Your task to perform on an android device: What's the latest news in cosmology? Image 0: 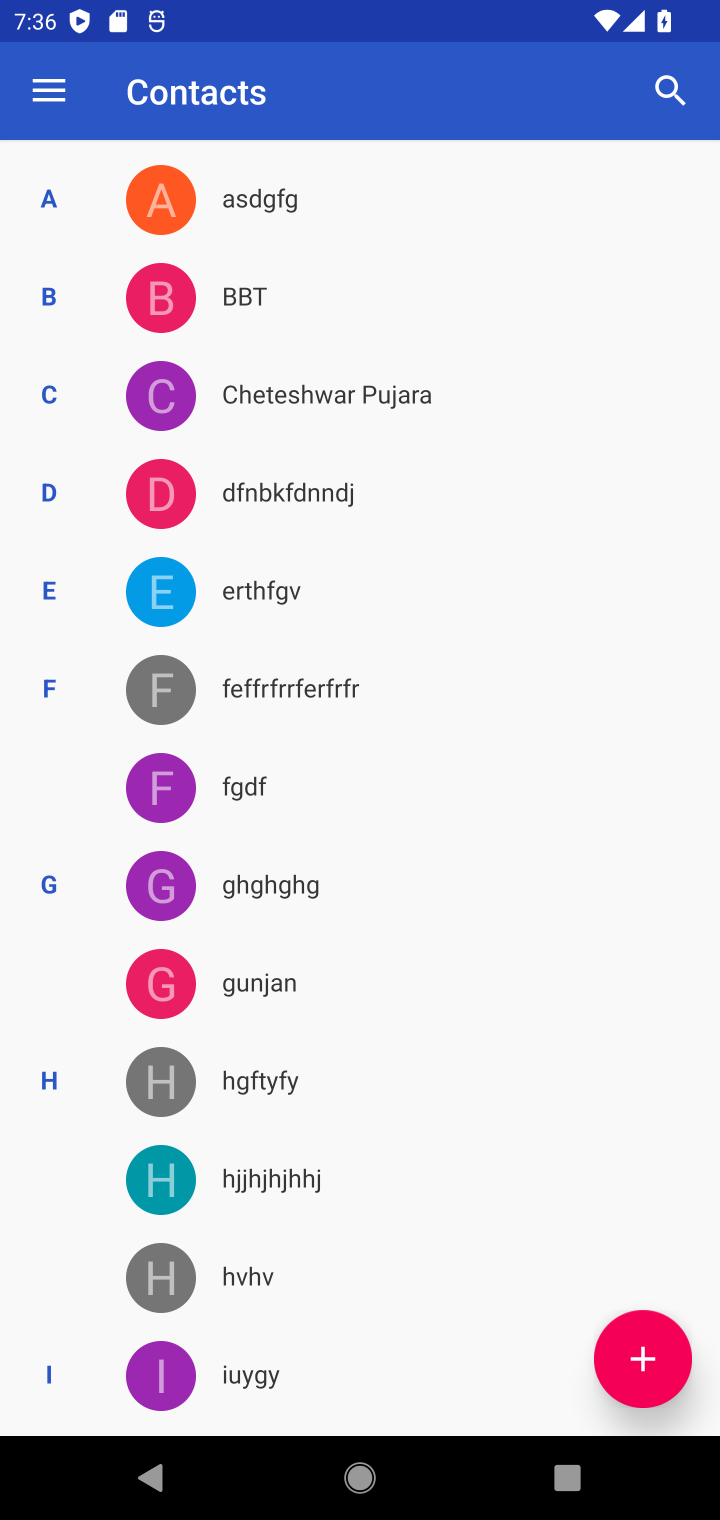
Step 0: press home button
Your task to perform on an android device: What's the latest news in cosmology? Image 1: 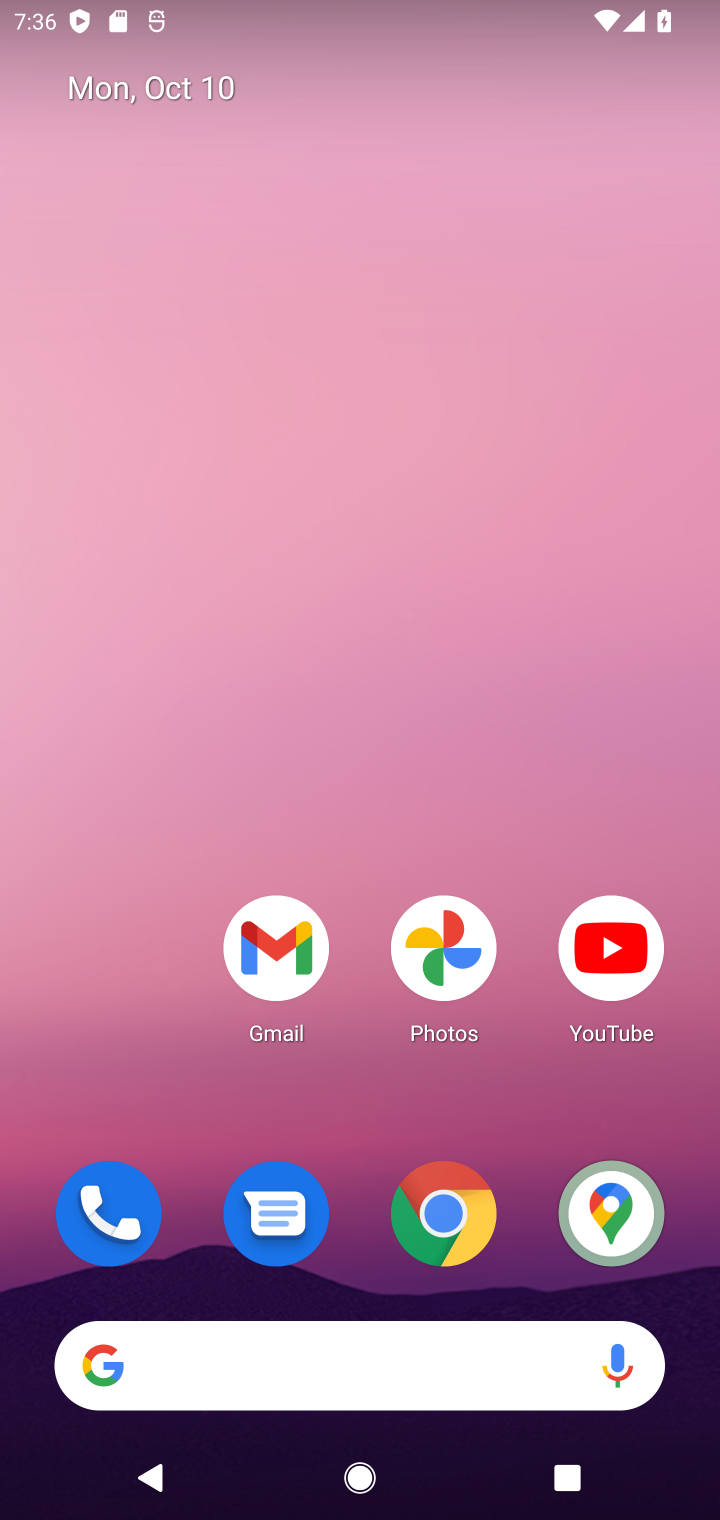
Step 1: click (351, 1344)
Your task to perform on an android device: What's the latest news in cosmology? Image 2: 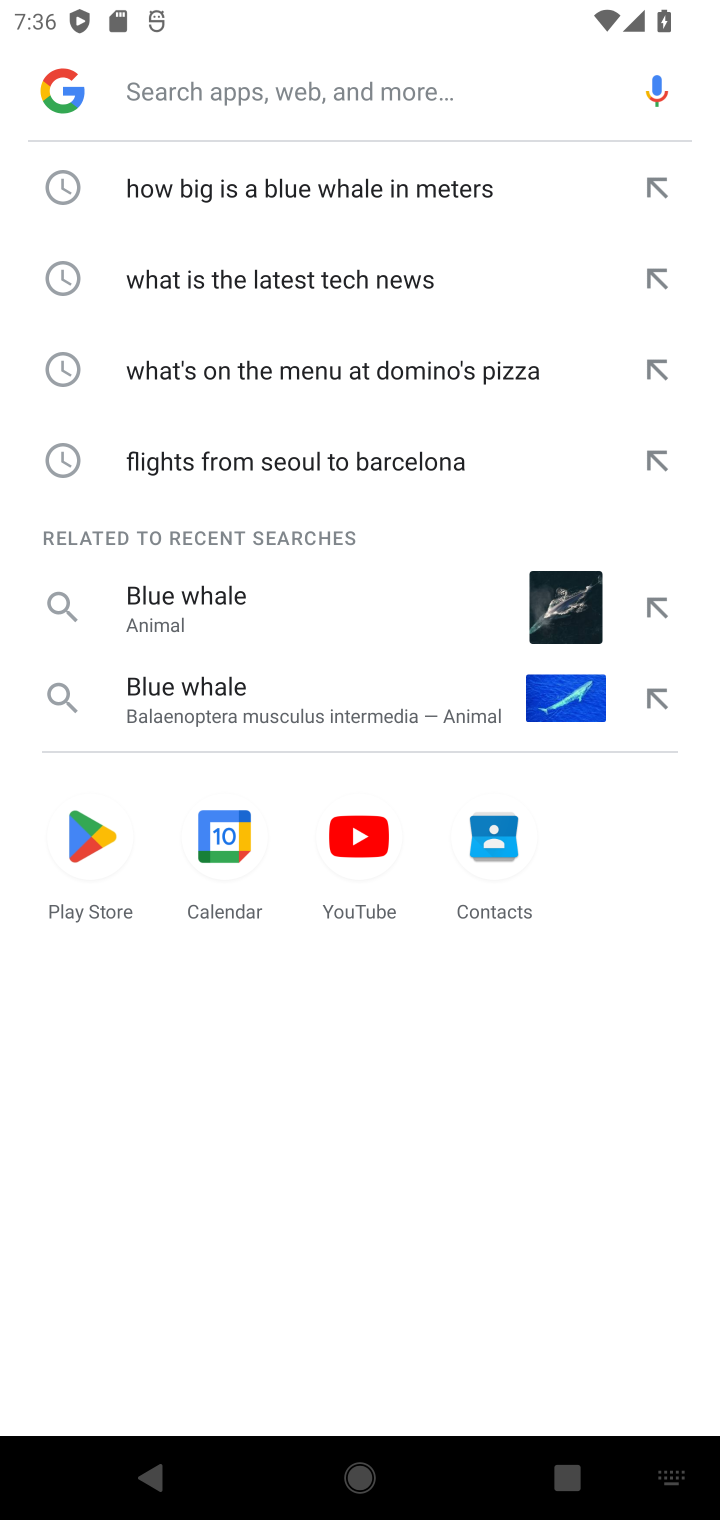
Step 2: click (159, 94)
Your task to perform on an android device: What's the latest news in cosmology? Image 3: 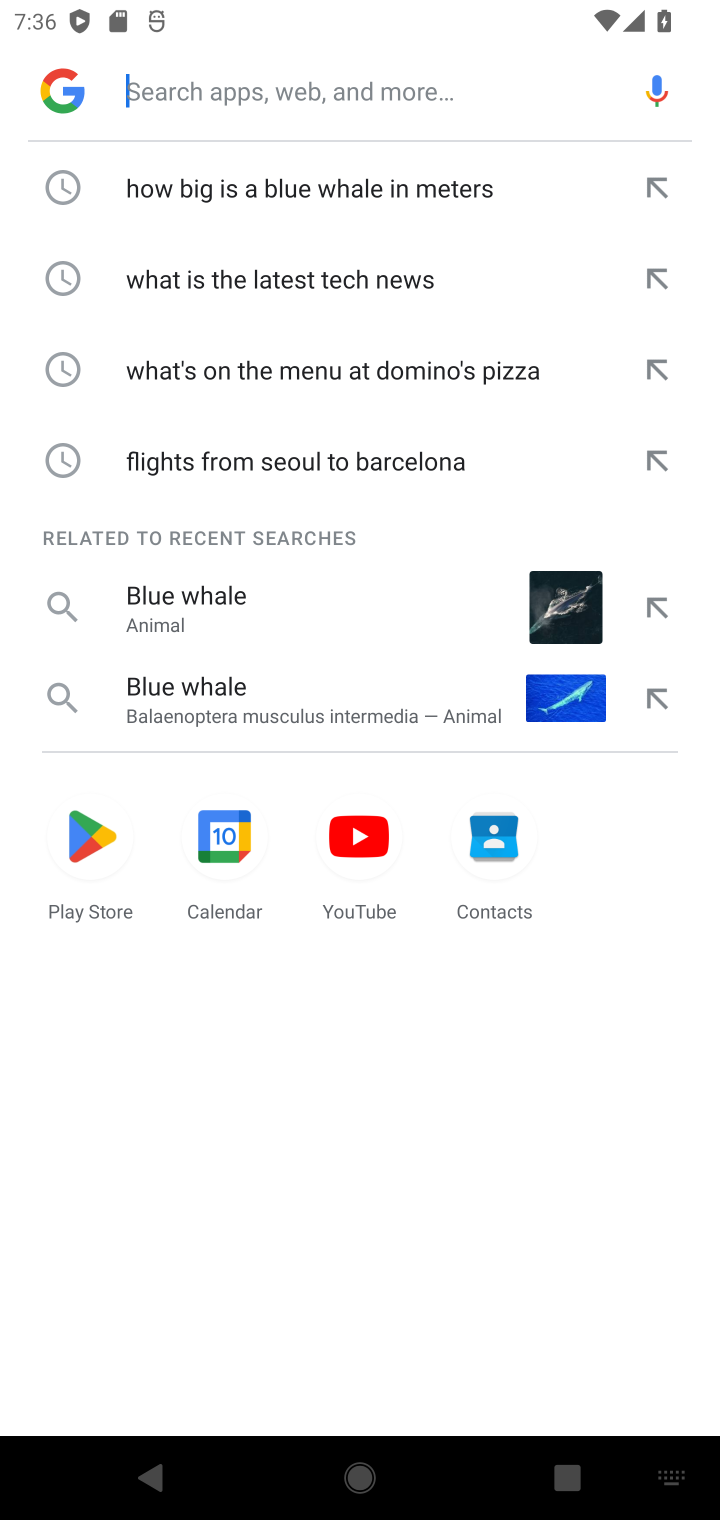
Step 3: type "What's the latest news in cosmology?"
Your task to perform on an android device: What's the latest news in cosmology? Image 4: 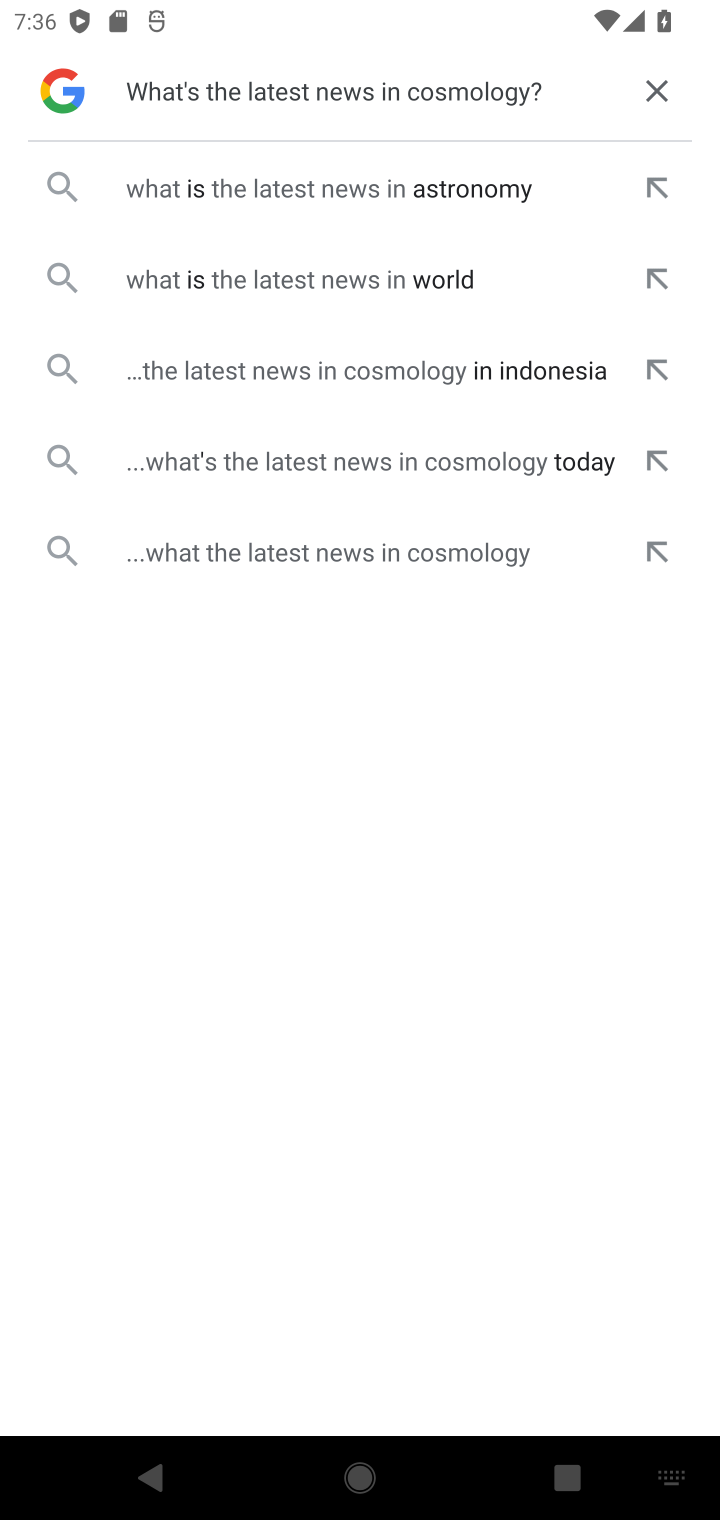
Step 4: click (343, 546)
Your task to perform on an android device: What's the latest news in cosmology? Image 5: 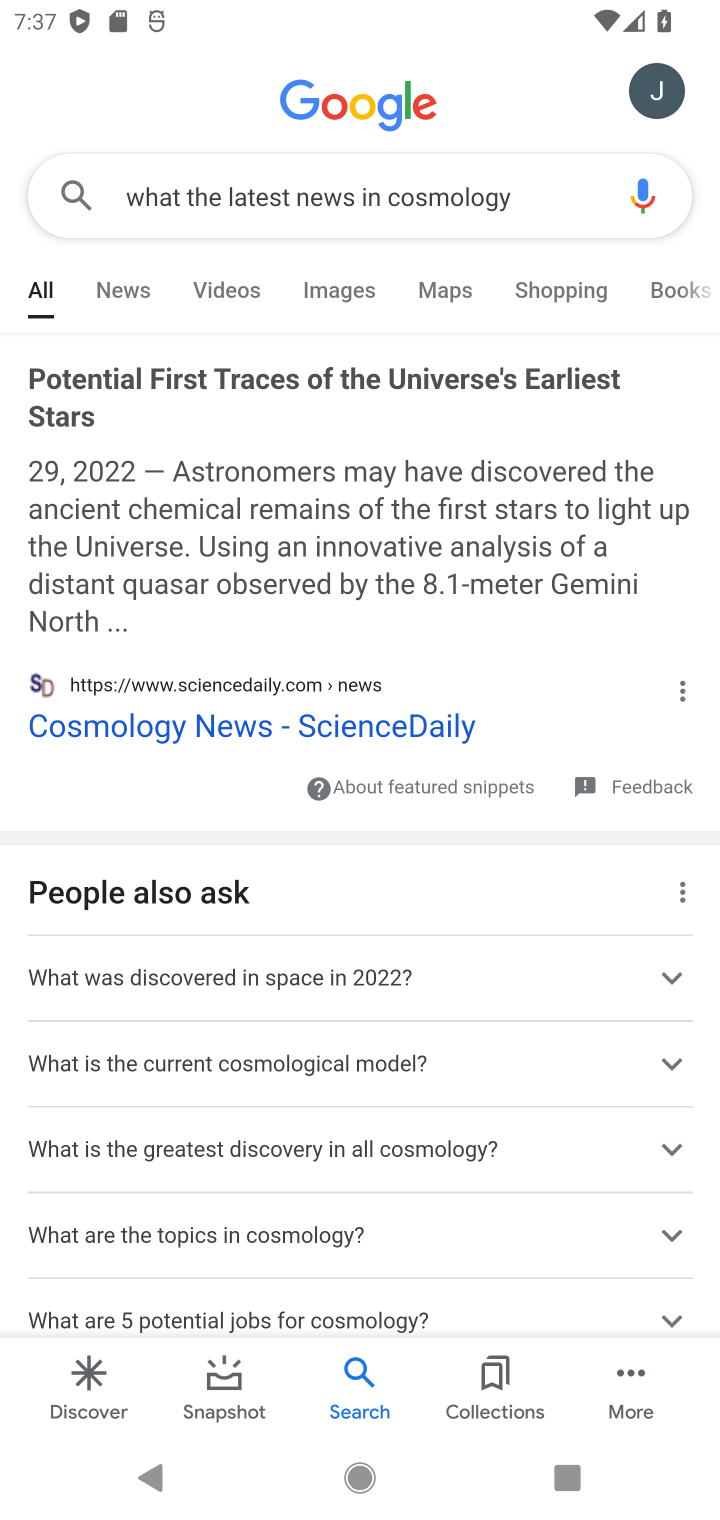
Step 5: task complete